Your task to perform on an android device: What's a good restaurant in Las Vegas? Image 0: 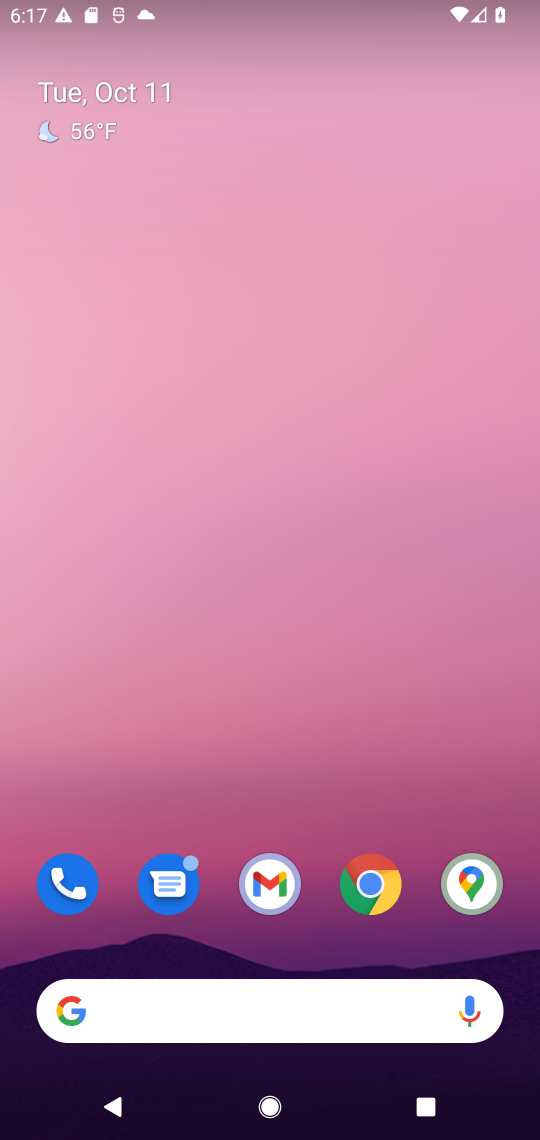
Step 0: drag from (311, 906) to (341, 130)
Your task to perform on an android device: What's a good restaurant in Las Vegas? Image 1: 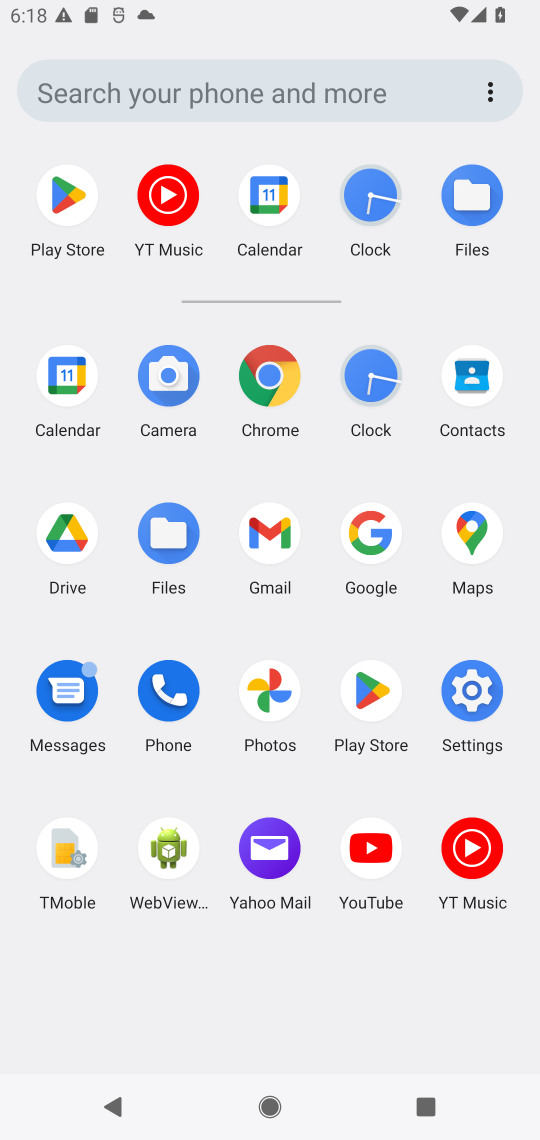
Step 1: click (475, 535)
Your task to perform on an android device: What's a good restaurant in Las Vegas? Image 2: 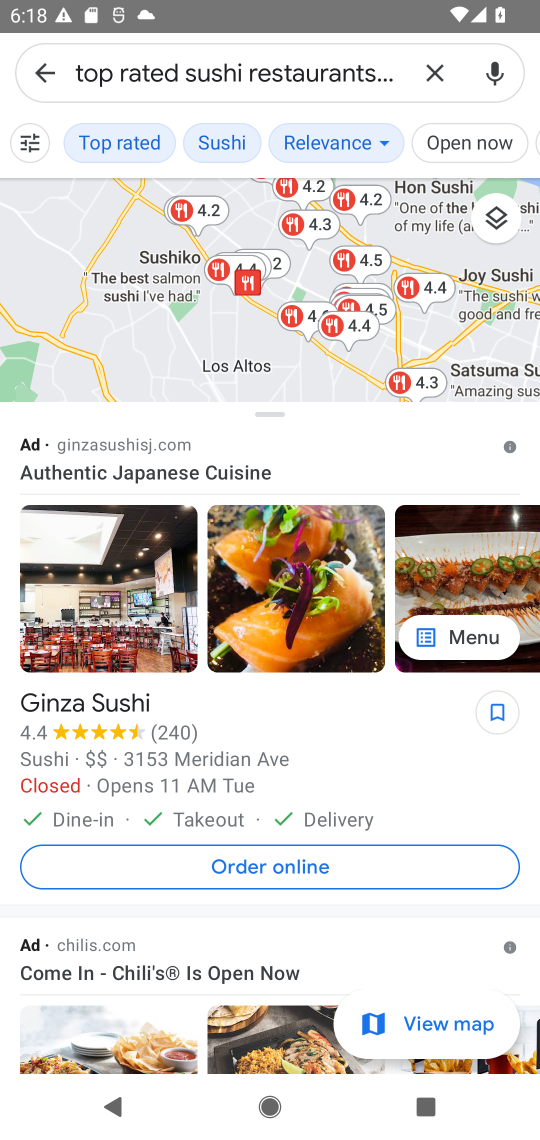
Step 2: click (448, 75)
Your task to perform on an android device: What's a good restaurant in Las Vegas? Image 3: 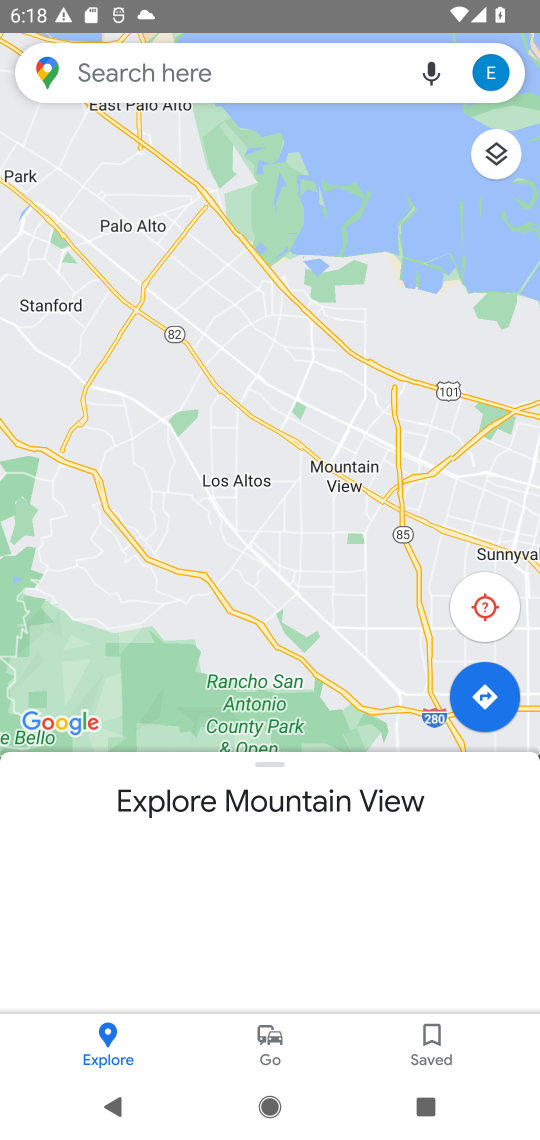
Step 3: click (332, 88)
Your task to perform on an android device: What's a good restaurant in Las Vegas? Image 4: 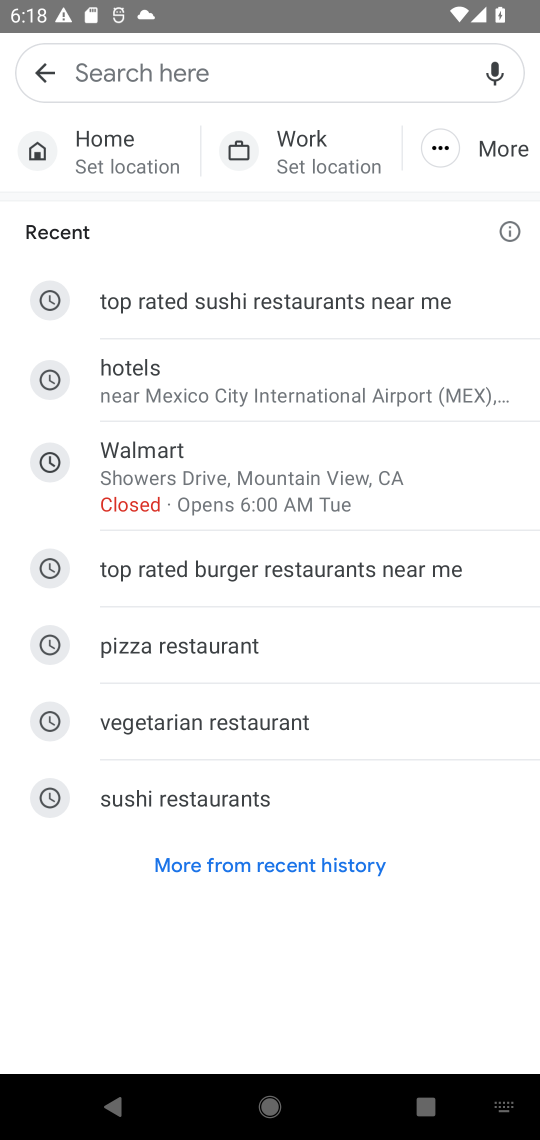
Step 4: type "What's a good restaurant in Las Vegas?"
Your task to perform on an android device: What's a good restaurant in Las Vegas? Image 5: 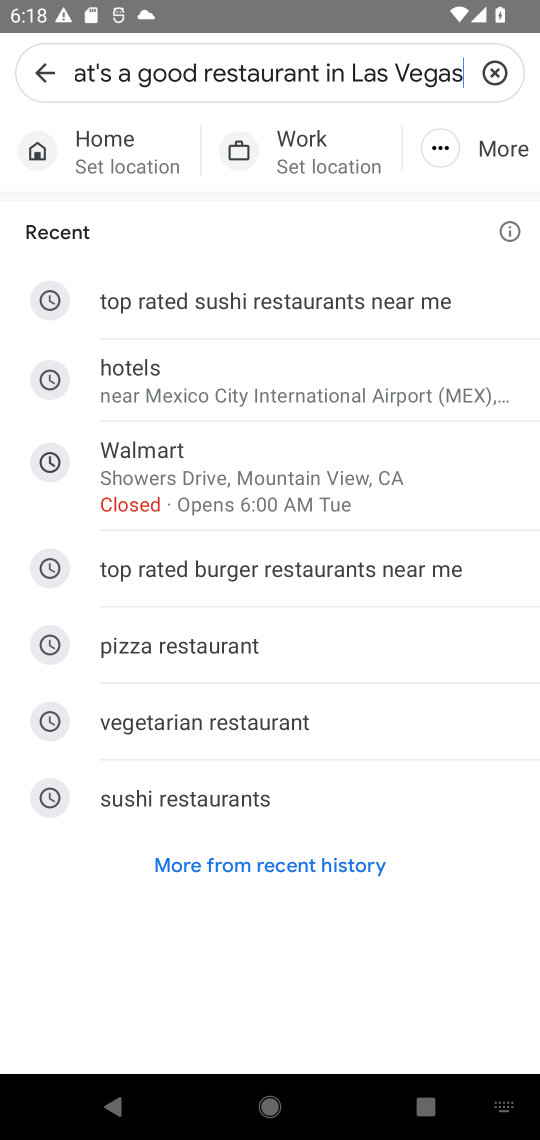
Step 5: type ""
Your task to perform on an android device: What's a good restaurant in Las Vegas? Image 6: 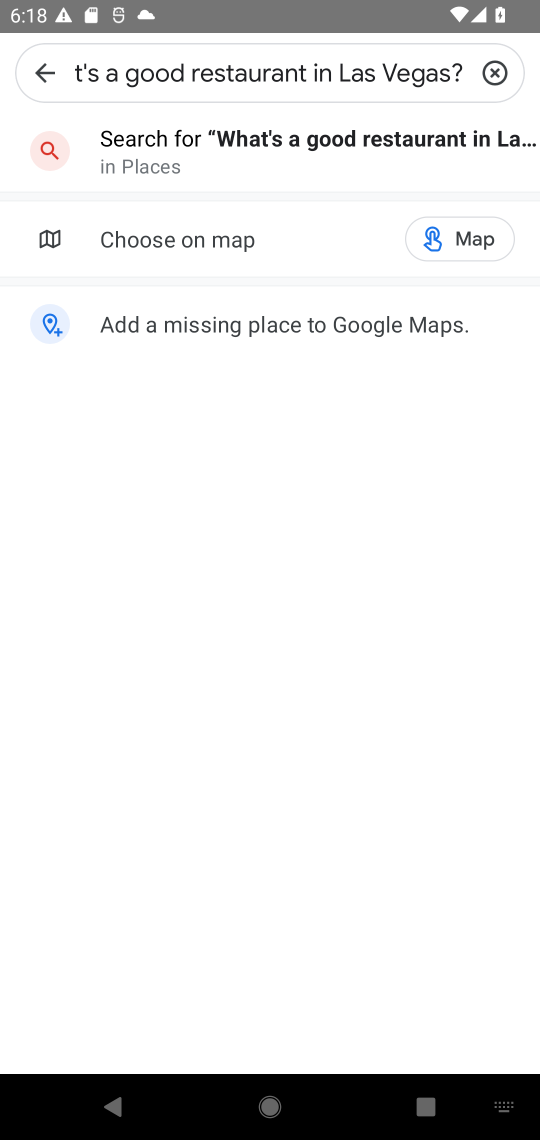
Step 6: click (302, 140)
Your task to perform on an android device: What's a good restaurant in Las Vegas? Image 7: 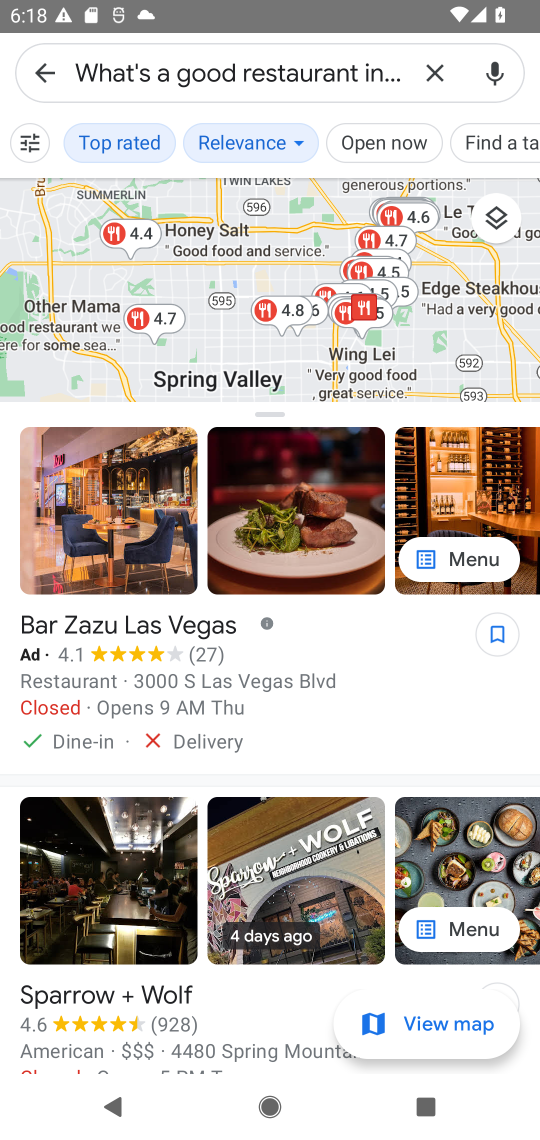
Step 7: task complete